Your task to perform on an android device: uninstall "Google Play Games" Image 0: 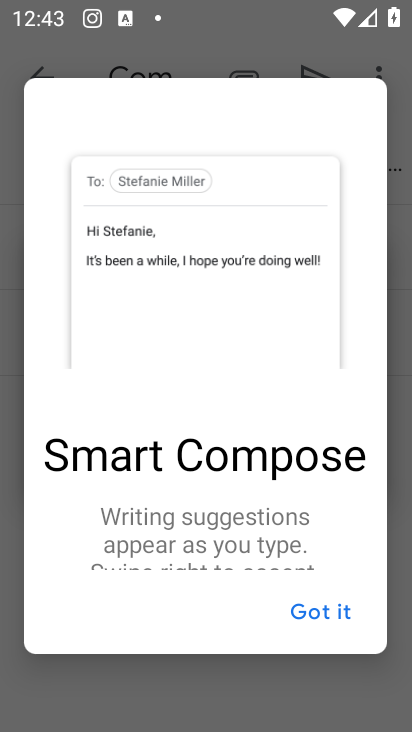
Step 0: press back button
Your task to perform on an android device: uninstall "Google Play Games" Image 1: 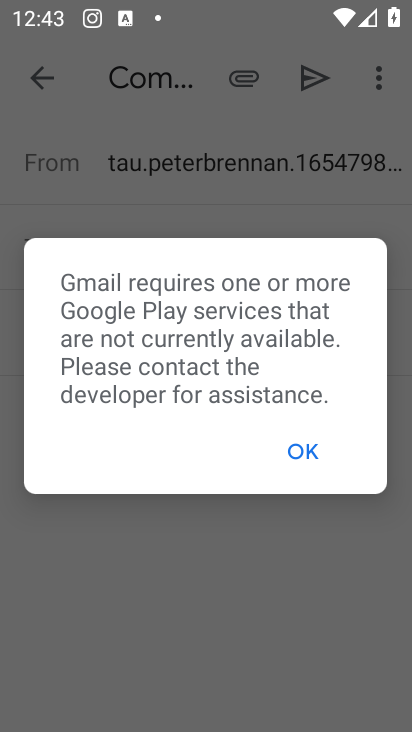
Step 1: press home button
Your task to perform on an android device: uninstall "Google Play Games" Image 2: 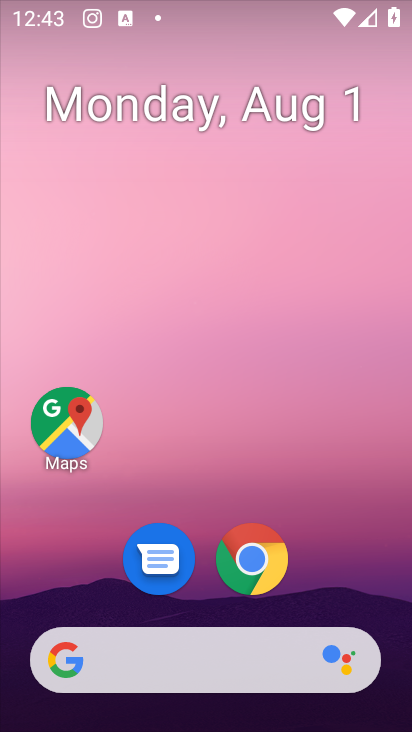
Step 2: drag from (77, 532) to (183, 8)
Your task to perform on an android device: uninstall "Google Play Games" Image 3: 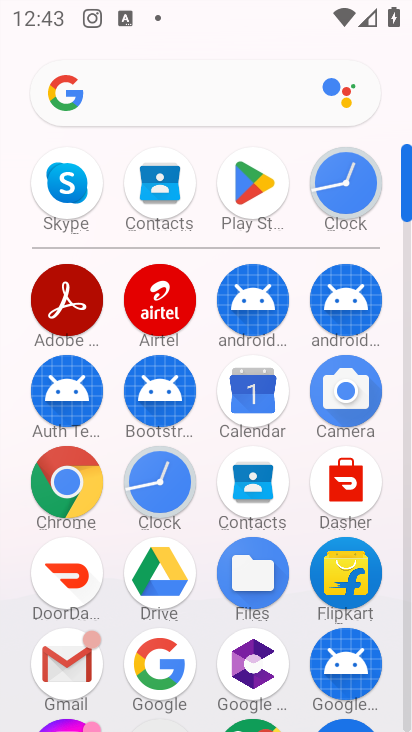
Step 3: click (240, 185)
Your task to perform on an android device: uninstall "Google Play Games" Image 4: 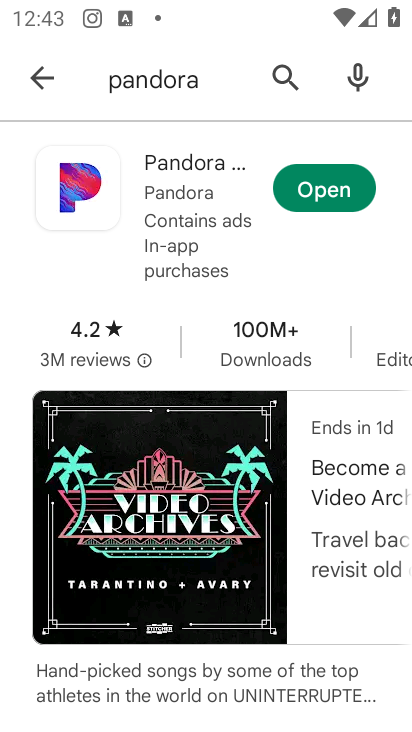
Step 4: click (292, 70)
Your task to perform on an android device: uninstall "Google Play Games" Image 5: 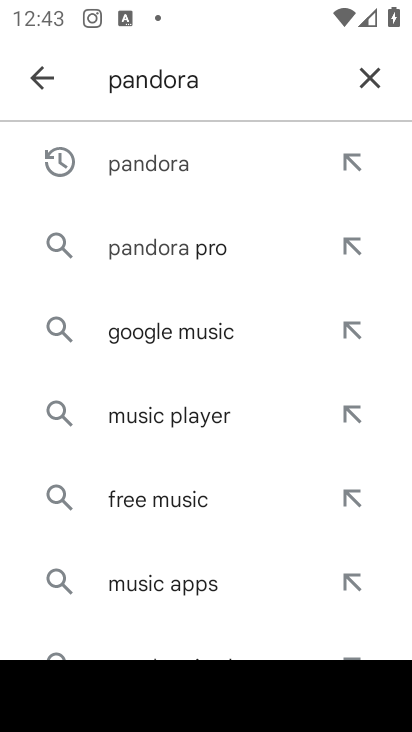
Step 5: click (381, 60)
Your task to perform on an android device: uninstall "Google Play Games" Image 6: 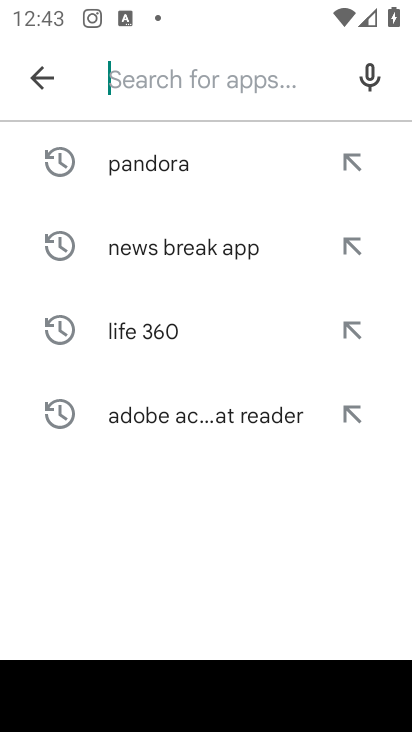
Step 6: click (168, 79)
Your task to perform on an android device: uninstall "Google Play Games" Image 7: 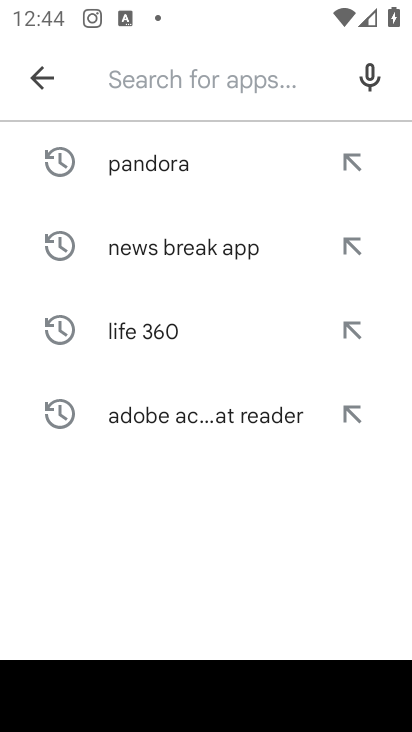
Step 7: type "google play games"
Your task to perform on an android device: uninstall "Google Play Games" Image 8: 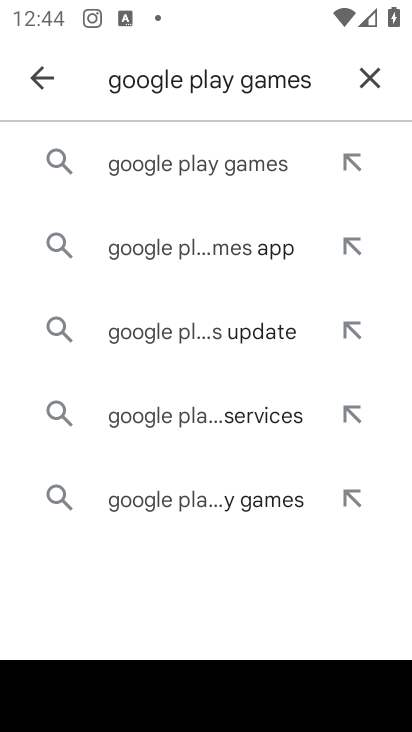
Step 8: click (181, 157)
Your task to perform on an android device: uninstall "Google Play Games" Image 9: 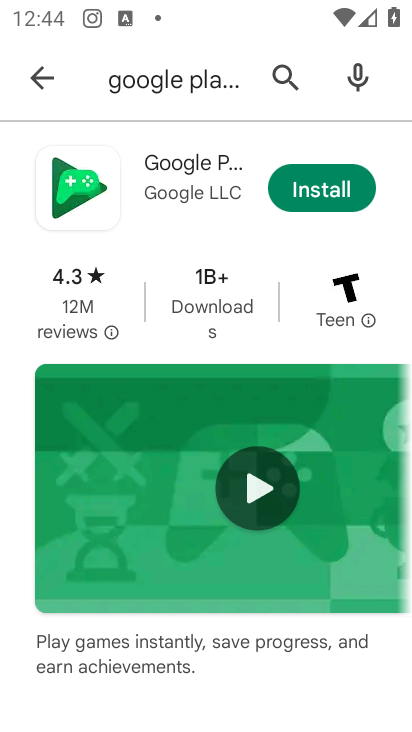
Step 9: task complete